Your task to perform on an android device: Open maps Image 0: 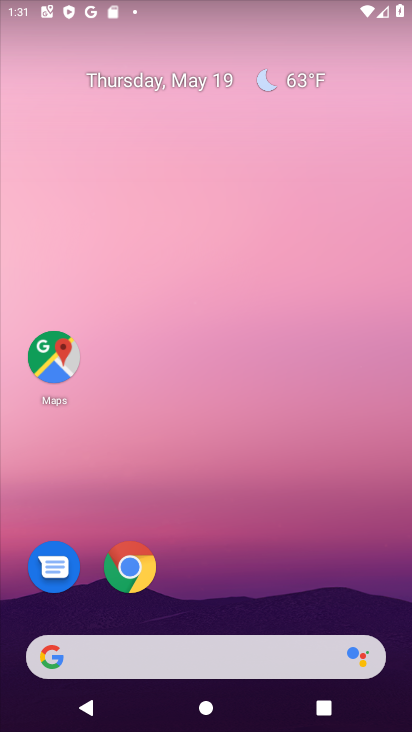
Step 0: drag from (302, 474) to (310, 0)
Your task to perform on an android device: Open maps Image 1: 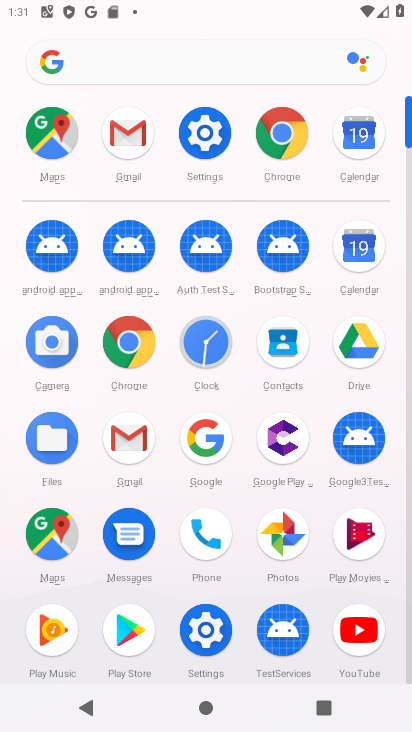
Step 1: click (59, 131)
Your task to perform on an android device: Open maps Image 2: 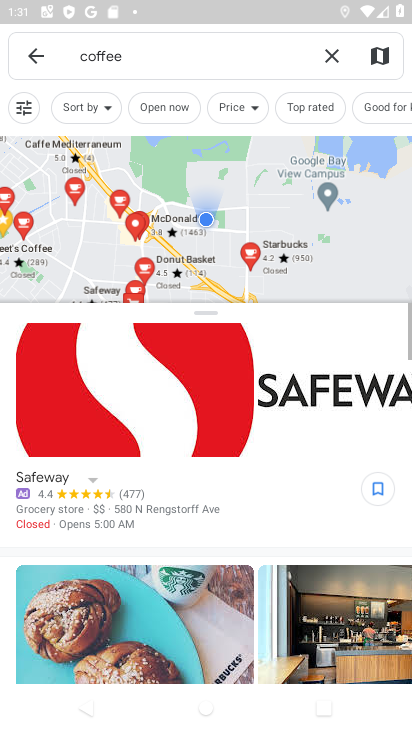
Step 2: task complete